Your task to perform on an android device: Open notification settings Image 0: 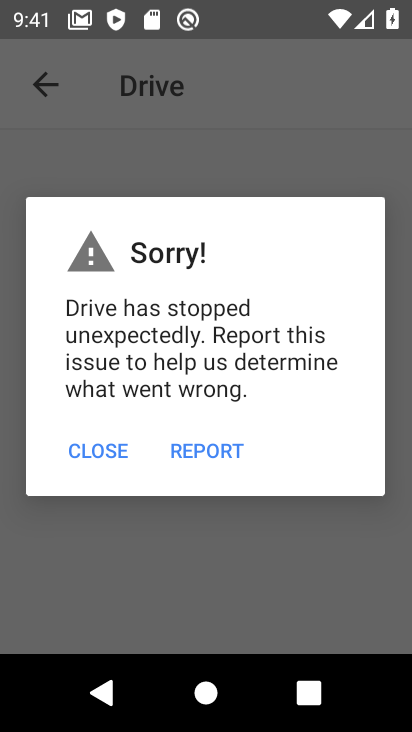
Step 0: press home button
Your task to perform on an android device: Open notification settings Image 1: 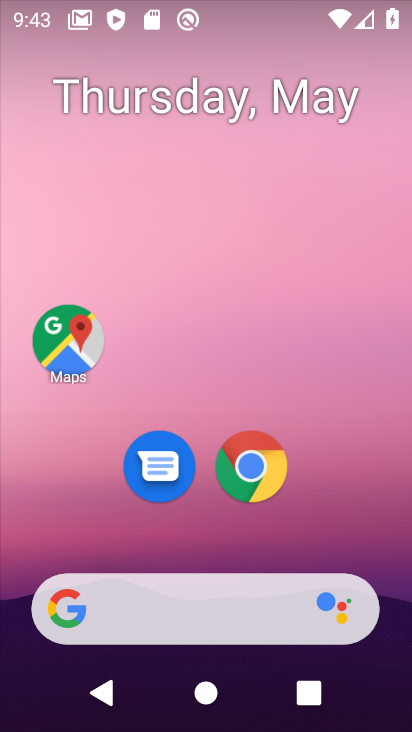
Step 1: drag from (373, 298) to (372, 13)
Your task to perform on an android device: Open notification settings Image 2: 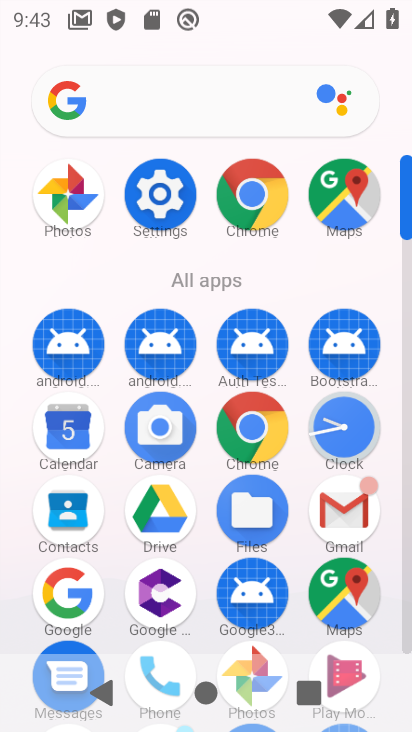
Step 2: click (157, 173)
Your task to perform on an android device: Open notification settings Image 3: 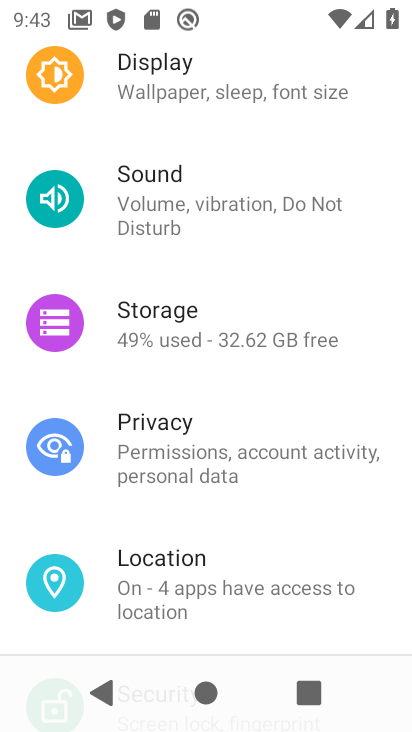
Step 3: drag from (259, 138) to (258, 578)
Your task to perform on an android device: Open notification settings Image 4: 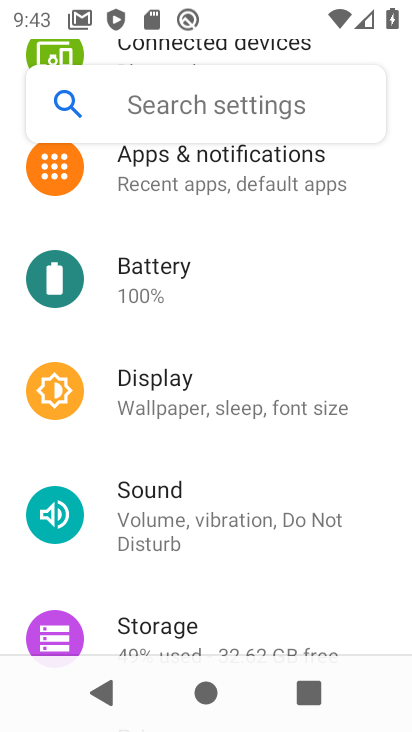
Step 4: click (262, 176)
Your task to perform on an android device: Open notification settings Image 5: 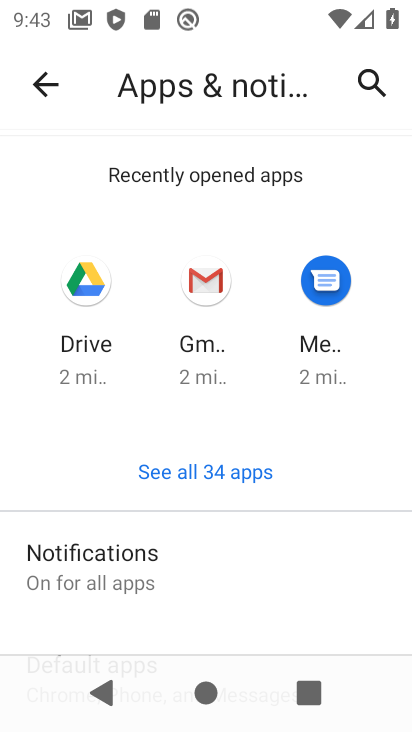
Step 5: click (129, 554)
Your task to perform on an android device: Open notification settings Image 6: 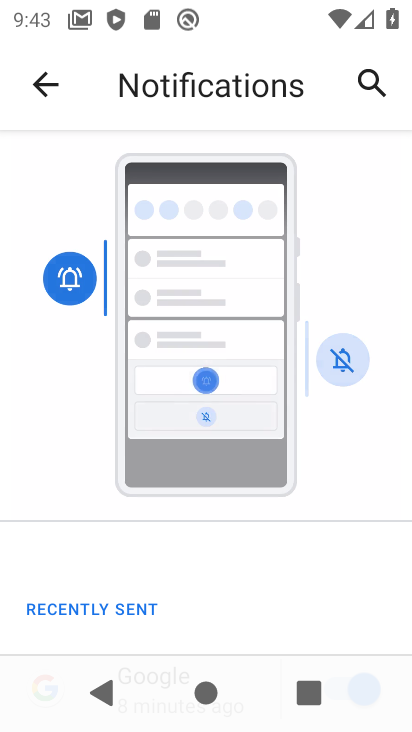
Step 6: task complete